Your task to perform on an android device: Go to wifi settings Image 0: 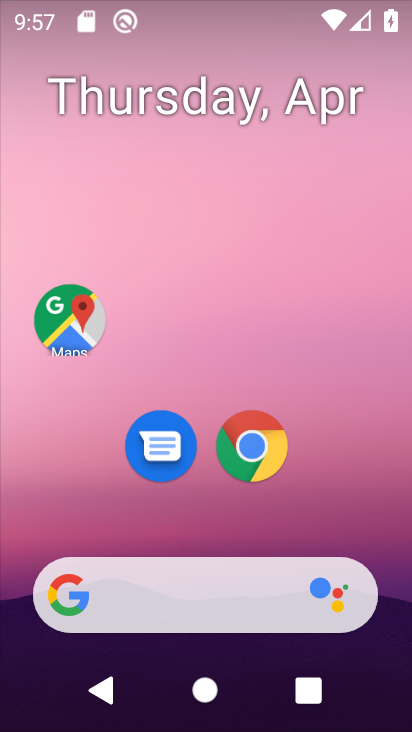
Step 0: drag from (186, 622) to (242, 65)
Your task to perform on an android device: Go to wifi settings Image 1: 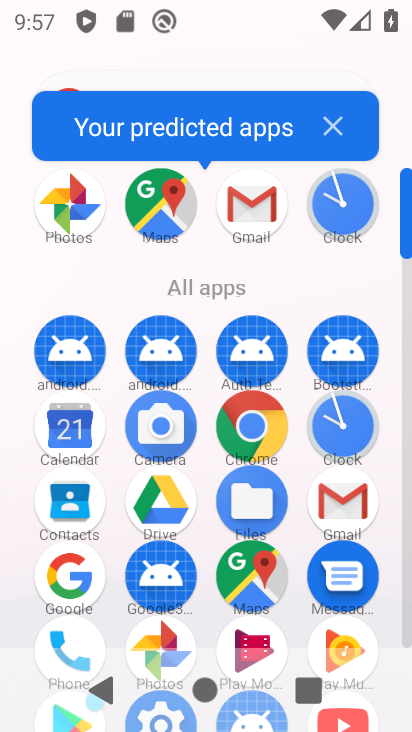
Step 1: drag from (225, 552) to (194, 49)
Your task to perform on an android device: Go to wifi settings Image 2: 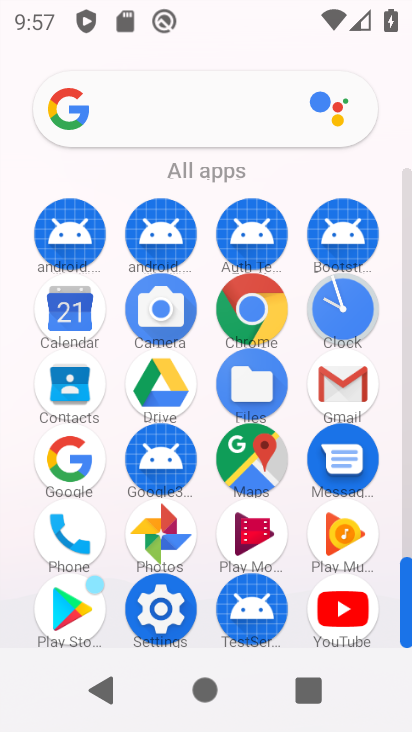
Step 2: click (164, 606)
Your task to perform on an android device: Go to wifi settings Image 3: 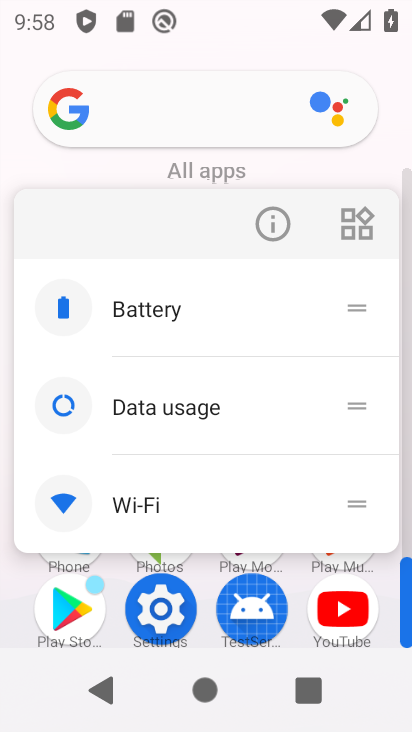
Step 3: click (153, 592)
Your task to perform on an android device: Go to wifi settings Image 4: 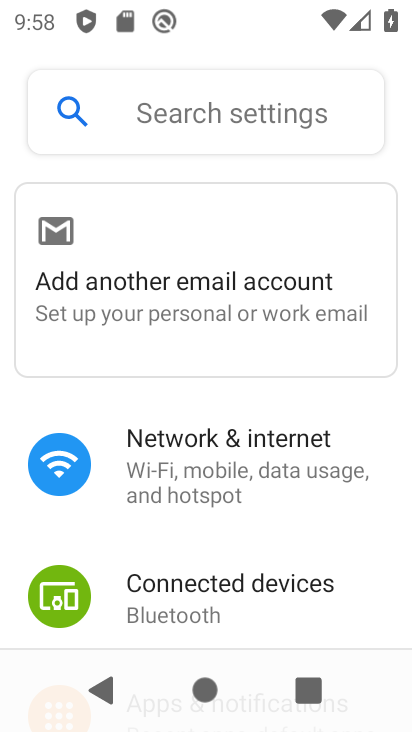
Step 4: click (197, 497)
Your task to perform on an android device: Go to wifi settings Image 5: 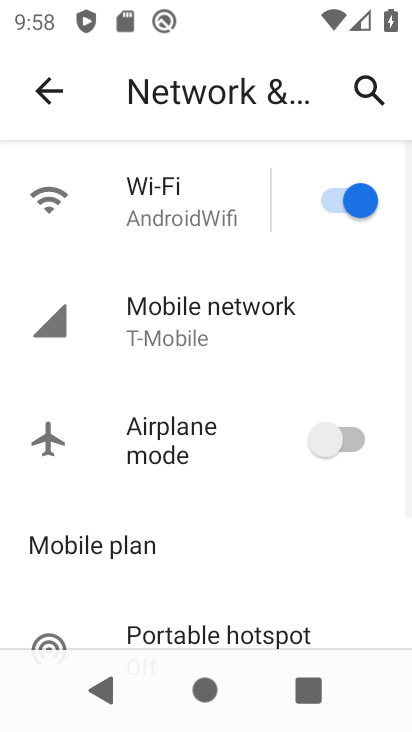
Step 5: click (171, 200)
Your task to perform on an android device: Go to wifi settings Image 6: 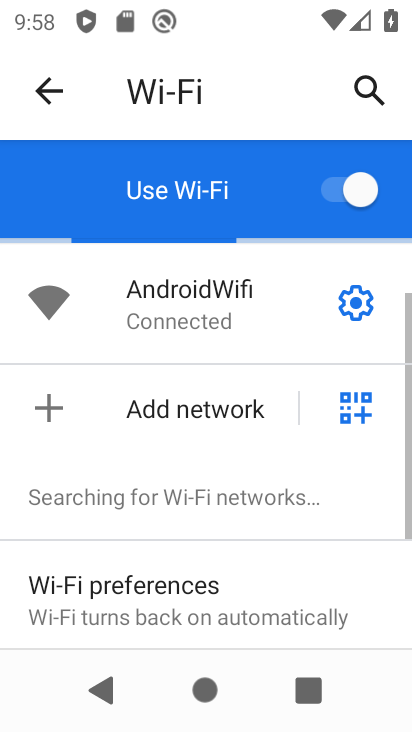
Step 6: task complete